Your task to perform on an android device: Open privacy settings Image 0: 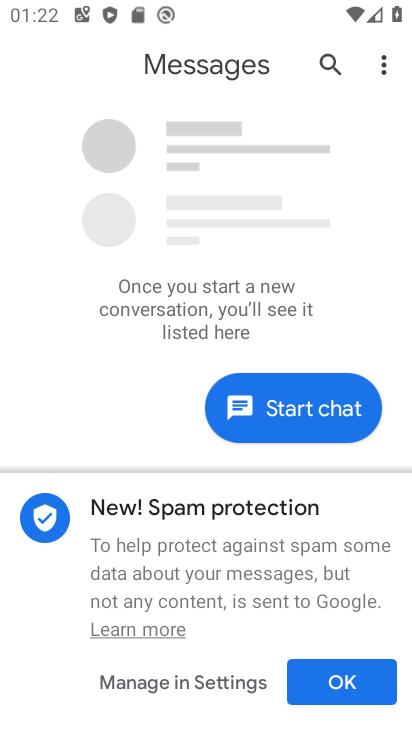
Step 0: click (69, 456)
Your task to perform on an android device: Open privacy settings Image 1: 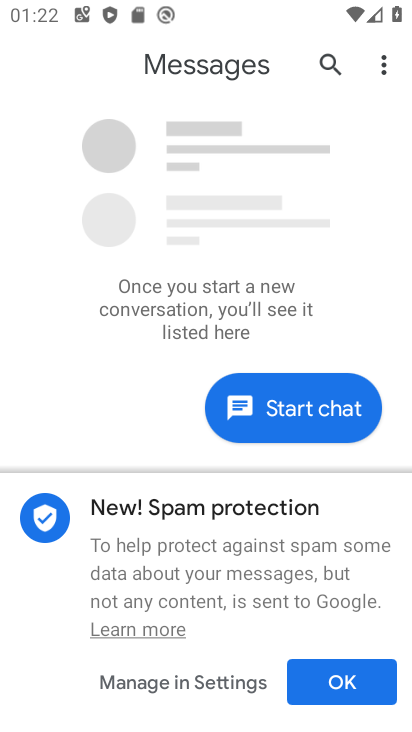
Step 1: press home button
Your task to perform on an android device: Open privacy settings Image 2: 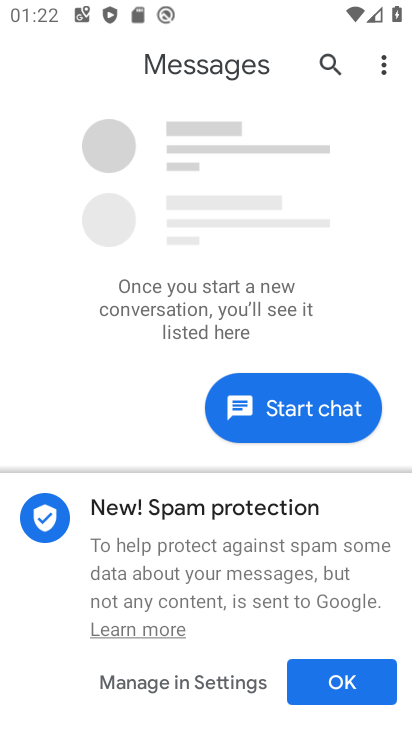
Step 2: press home button
Your task to perform on an android device: Open privacy settings Image 3: 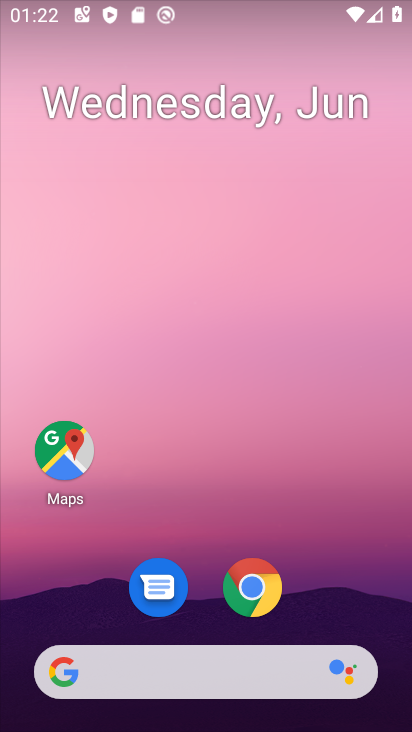
Step 3: drag from (303, 512) to (301, 118)
Your task to perform on an android device: Open privacy settings Image 4: 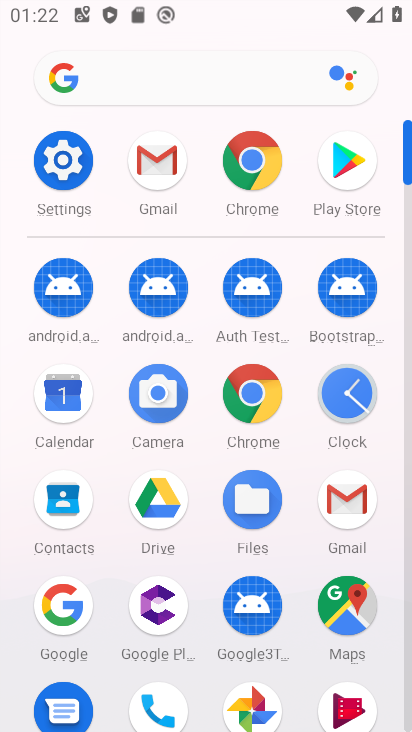
Step 4: click (72, 165)
Your task to perform on an android device: Open privacy settings Image 5: 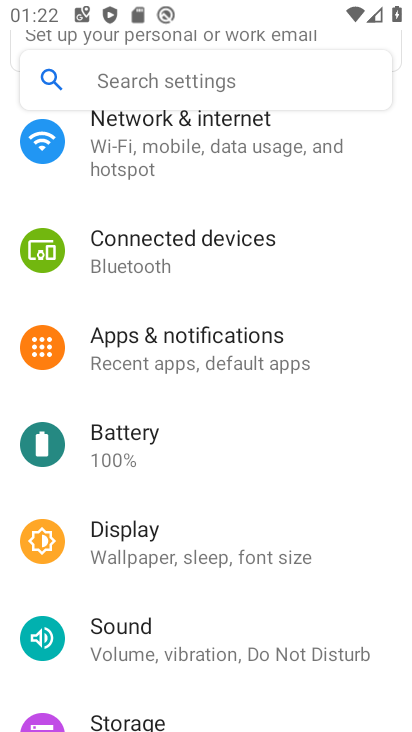
Step 5: drag from (217, 308) to (285, 177)
Your task to perform on an android device: Open privacy settings Image 6: 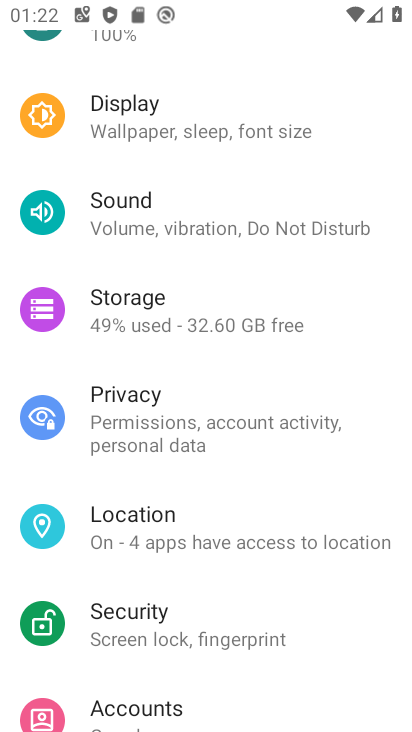
Step 6: click (161, 419)
Your task to perform on an android device: Open privacy settings Image 7: 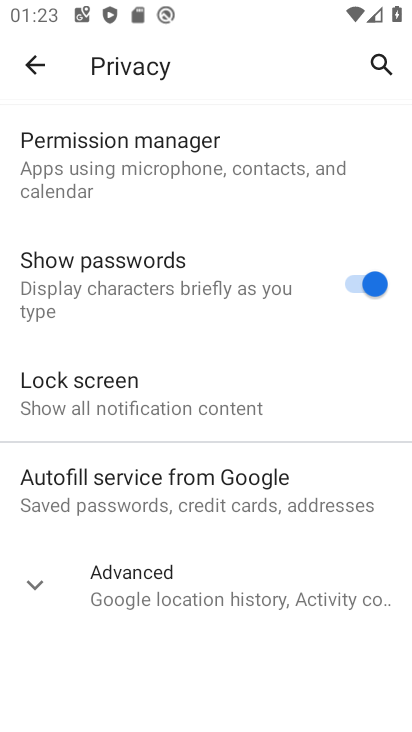
Step 7: task complete